Your task to perform on an android device: turn on showing notifications on the lock screen Image 0: 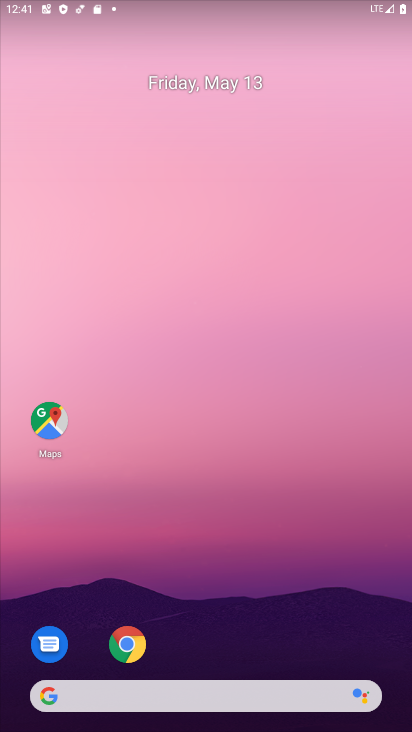
Step 0: drag from (294, 641) to (254, 125)
Your task to perform on an android device: turn on showing notifications on the lock screen Image 1: 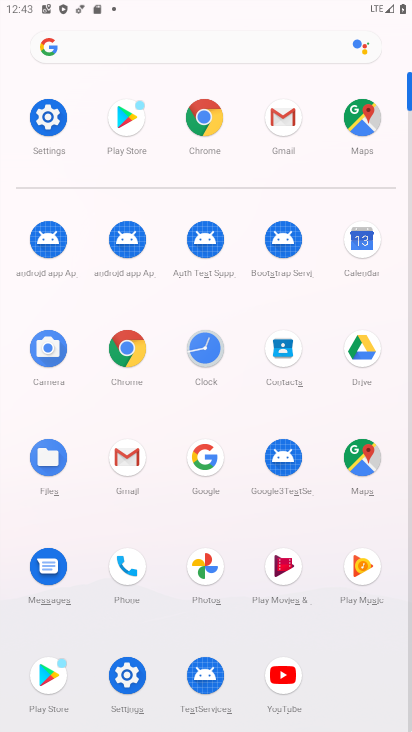
Step 1: click (120, 679)
Your task to perform on an android device: turn on showing notifications on the lock screen Image 2: 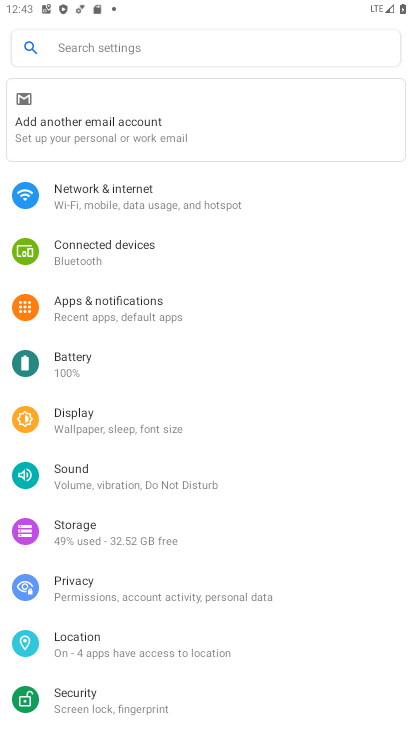
Step 2: click (150, 313)
Your task to perform on an android device: turn on showing notifications on the lock screen Image 3: 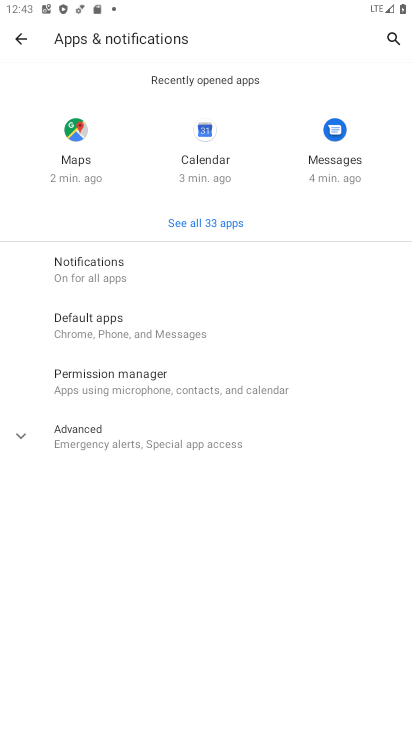
Step 3: click (128, 278)
Your task to perform on an android device: turn on showing notifications on the lock screen Image 4: 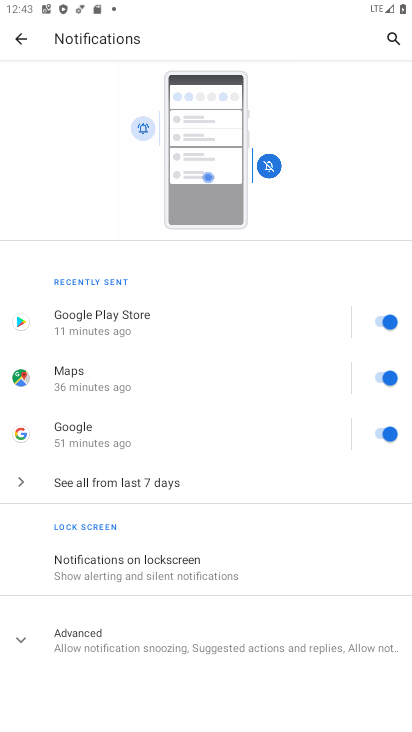
Step 4: click (221, 578)
Your task to perform on an android device: turn on showing notifications on the lock screen Image 5: 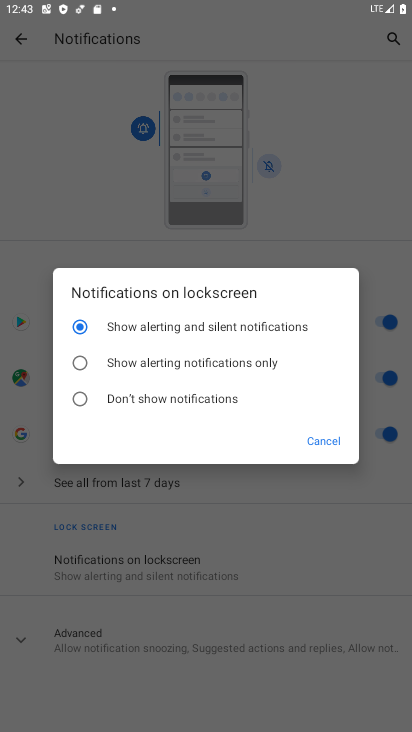
Step 5: task complete